Your task to perform on an android device: turn pop-ups off in chrome Image 0: 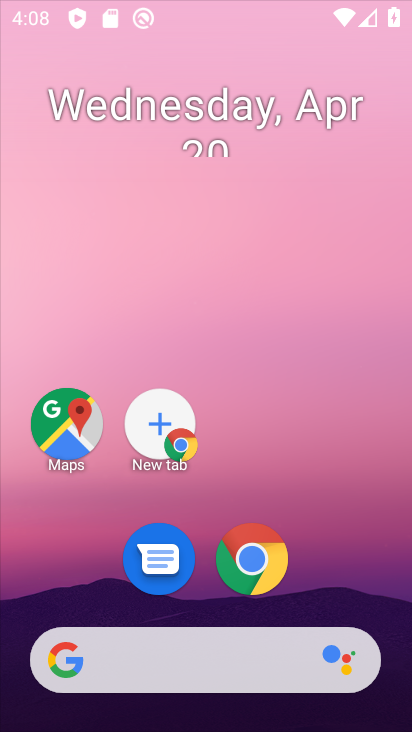
Step 0: drag from (409, 364) to (322, 441)
Your task to perform on an android device: turn pop-ups off in chrome Image 1: 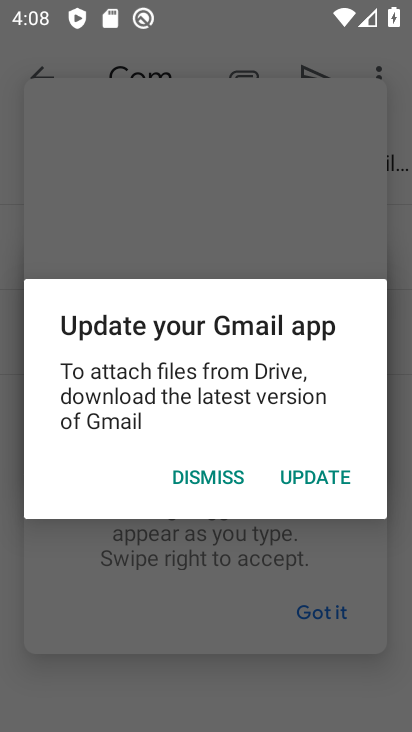
Step 1: press home button
Your task to perform on an android device: turn pop-ups off in chrome Image 2: 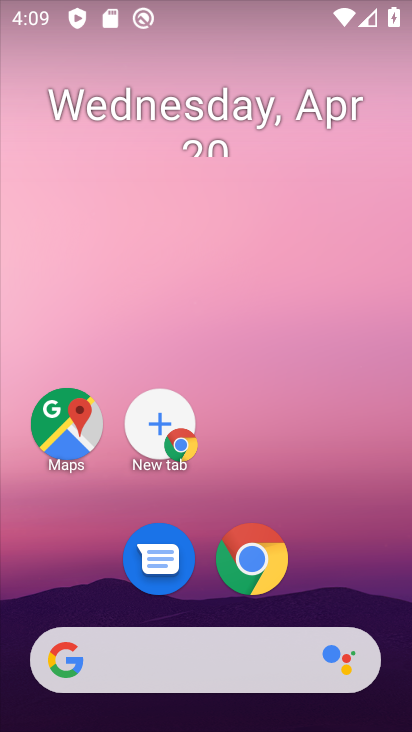
Step 2: click (324, 624)
Your task to perform on an android device: turn pop-ups off in chrome Image 3: 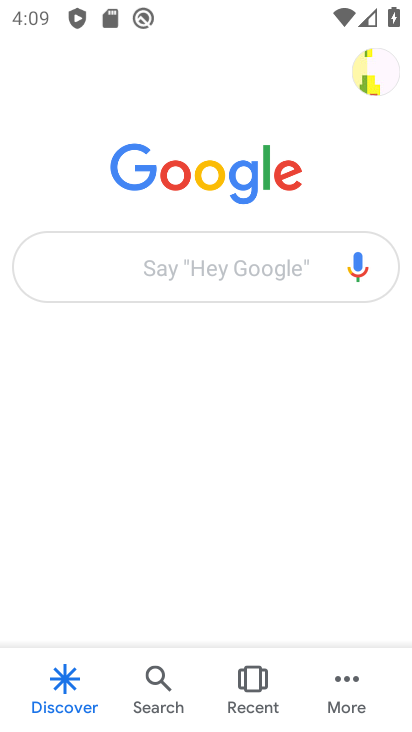
Step 3: press home button
Your task to perform on an android device: turn pop-ups off in chrome Image 4: 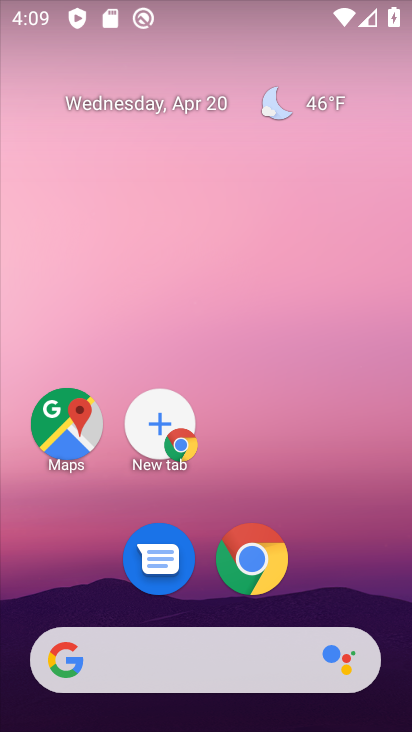
Step 4: click (244, 572)
Your task to perform on an android device: turn pop-ups off in chrome Image 5: 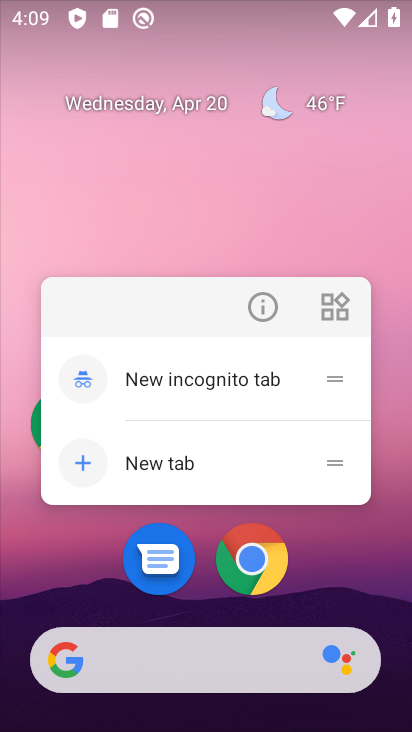
Step 5: click (244, 572)
Your task to perform on an android device: turn pop-ups off in chrome Image 6: 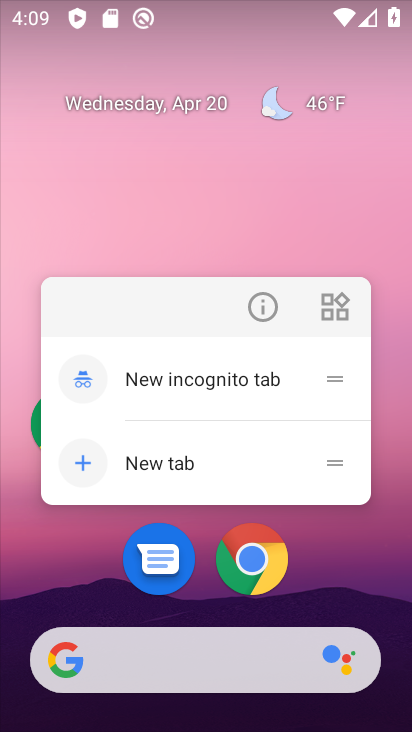
Step 6: click (244, 572)
Your task to perform on an android device: turn pop-ups off in chrome Image 7: 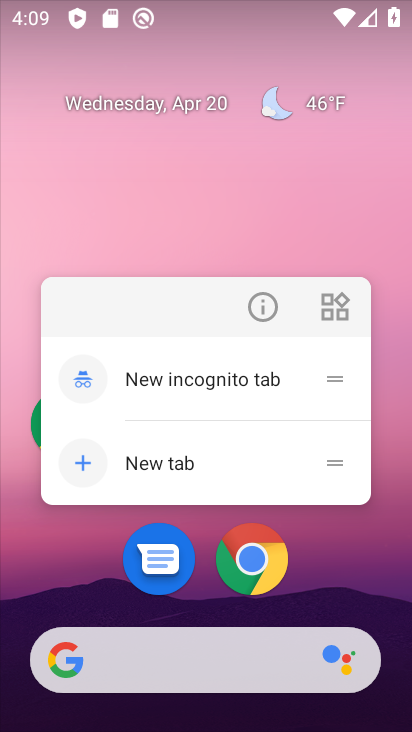
Step 7: click (244, 572)
Your task to perform on an android device: turn pop-ups off in chrome Image 8: 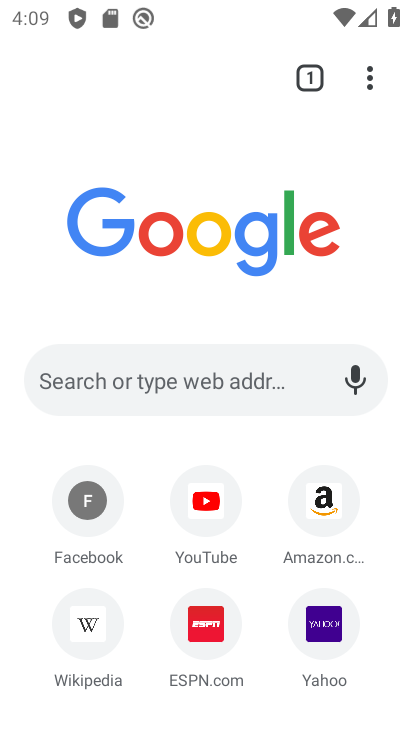
Step 8: click (373, 78)
Your task to perform on an android device: turn pop-ups off in chrome Image 9: 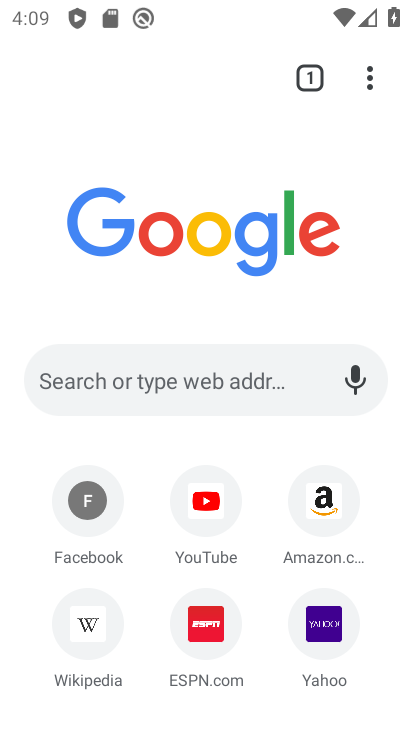
Step 9: click (367, 93)
Your task to perform on an android device: turn pop-ups off in chrome Image 10: 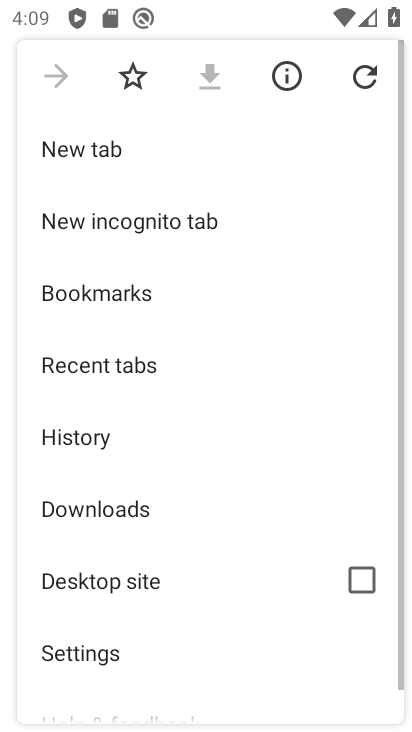
Step 10: drag from (170, 574) to (214, 282)
Your task to perform on an android device: turn pop-ups off in chrome Image 11: 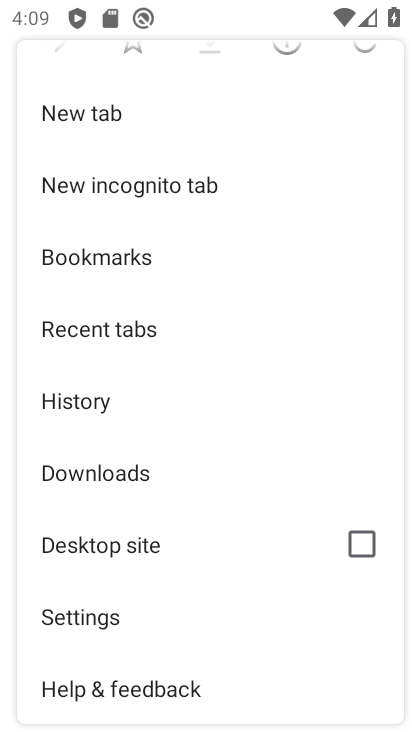
Step 11: click (119, 606)
Your task to perform on an android device: turn pop-ups off in chrome Image 12: 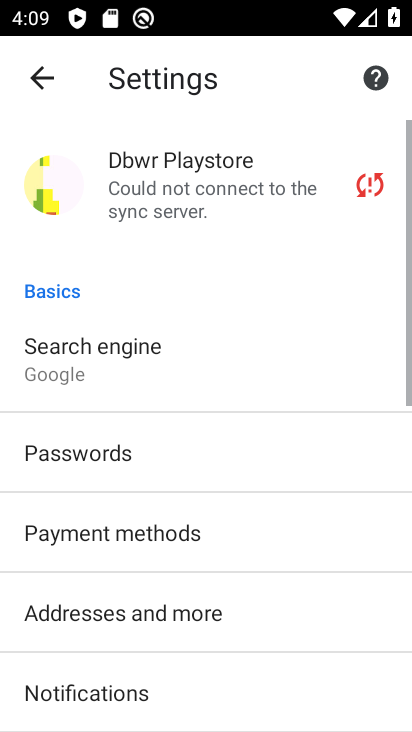
Step 12: drag from (119, 606) to (152, 286)
Your task to perform on an android device: turn pop-ups off in chrome Image 13: 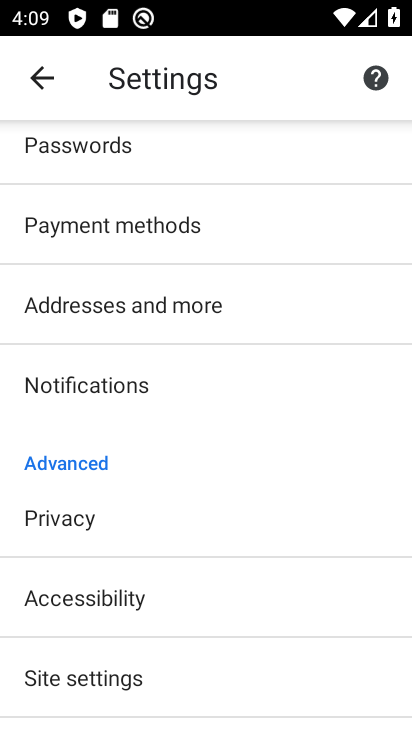
Step 13: drag from (119, 668) to (171, 427)
Your task to perform on an android device: turn pop-ups off in chrome Image 14: 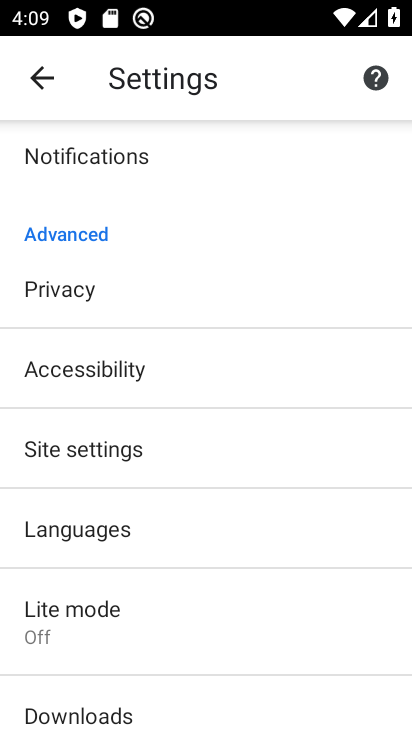
Step 14: click (159, 439)
Your task to perform on an android device: turn pop-ups off in chrome Image 15: 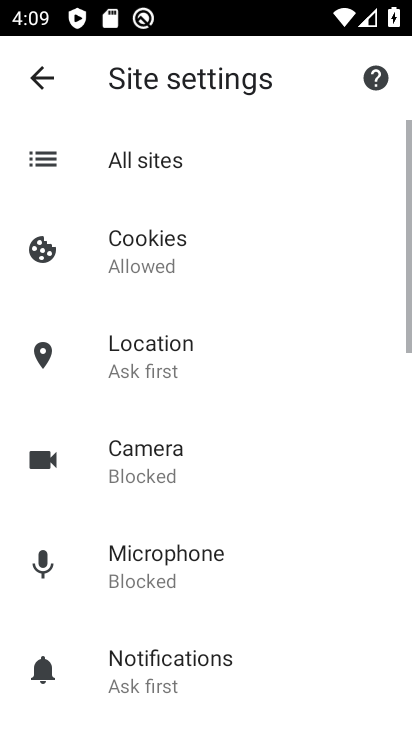
Step 15: drag from (166, 575) to (204, 240)
Your task to perform on an android device: turn pop-ups off in chrome Image 16: 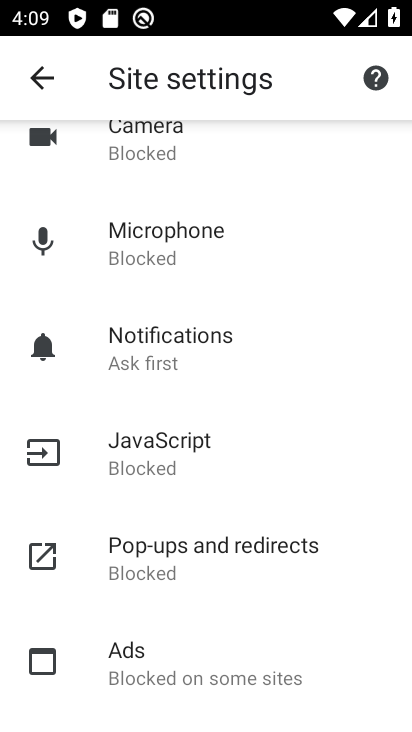
Step 16: click (198, 561)
Your task to perform on an android device: turn pop-ups off in chrome Image 17: 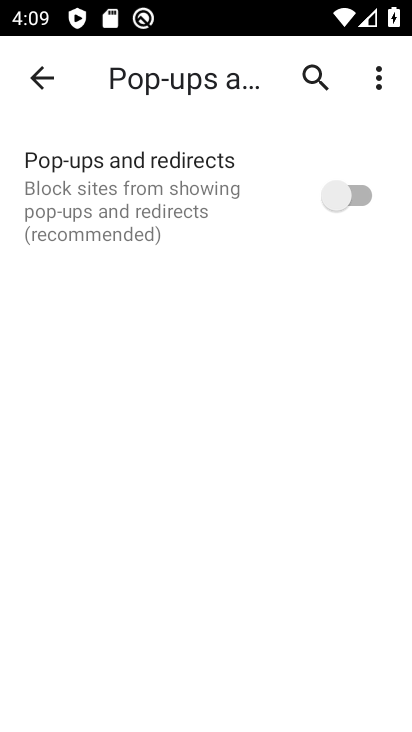
Step 17: click (366, 196)
Your task to perform on an android device: turn pop-ups off in chrome Image 18: 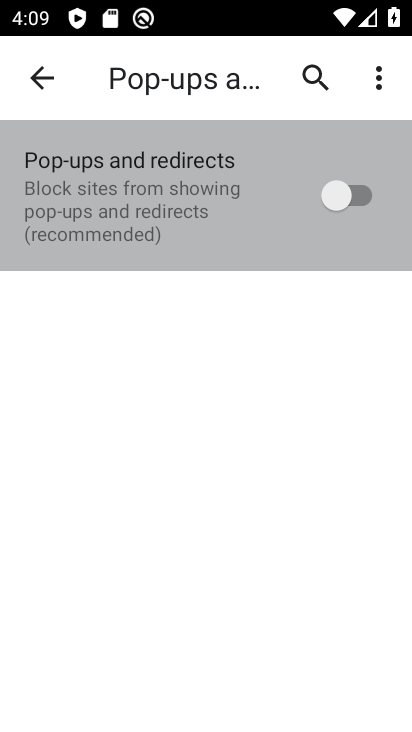
Step 18: task complete